Your task to perform on an android device: What's the weather going to be tomorrow? Image 0: 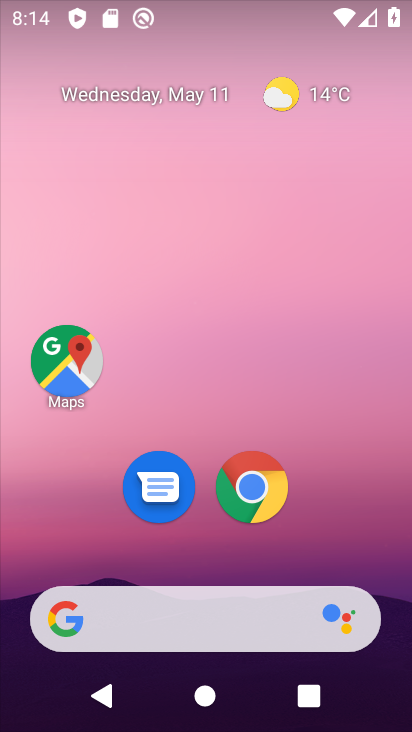
Step 0: click (199, 631)
Your task to perform on an android device: What's the weather going to be tomorrow? Image 1: 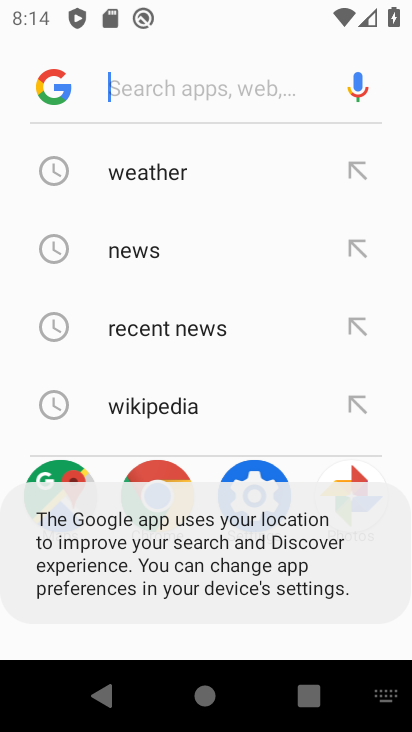
Step 1: click (163, 179)
Your task to perform on an android device: What's the weather going to be tomorrow? Image 2: 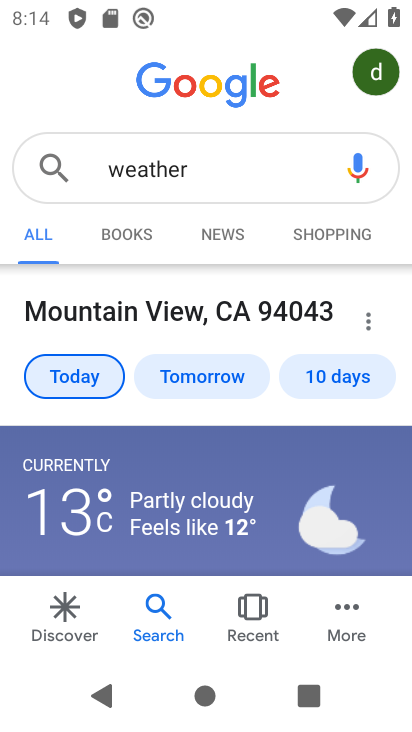
Step 2: click (186, 377)
Your task to perform on an android device: What's the weather going to be tomorrow? Image 3: 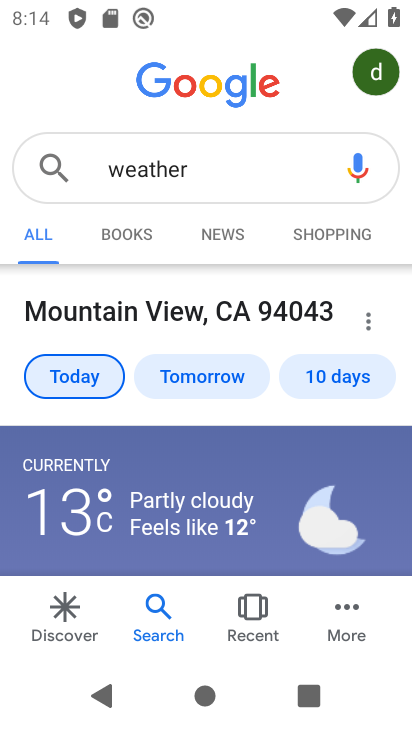
Step 3: click (212, 377)
Your task to perform on an android device: What's the weather going to be tomorrow? Image 4: 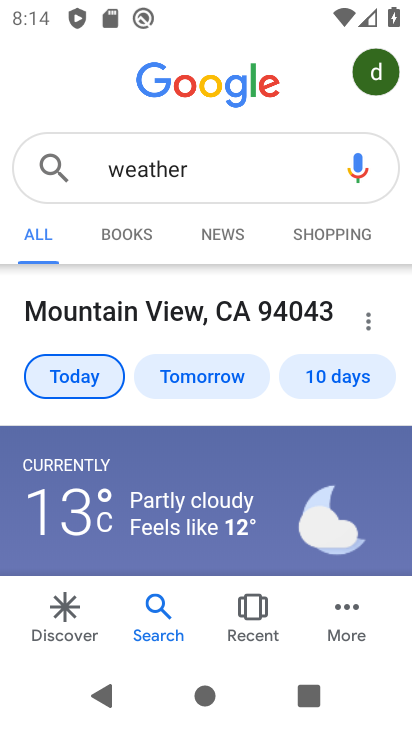
Step 4: click (183, 372)
Your task to perform on an android device: What's the weather going to be tomorrow? Image 5: 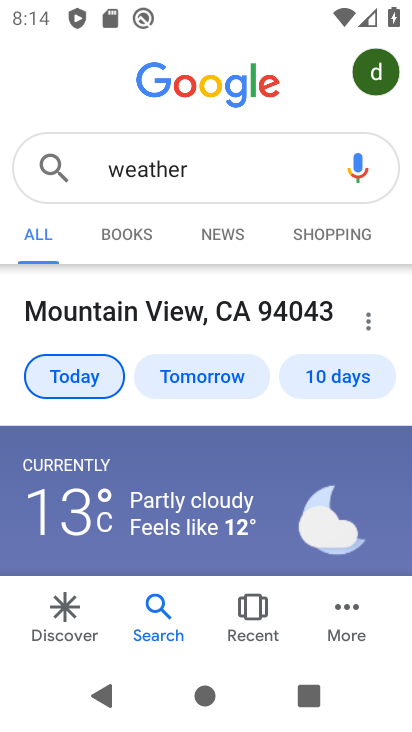
Step 5: click (189, 378)
Your task to perform on an android device: What's the weather going to be tomorrow? Image 6: 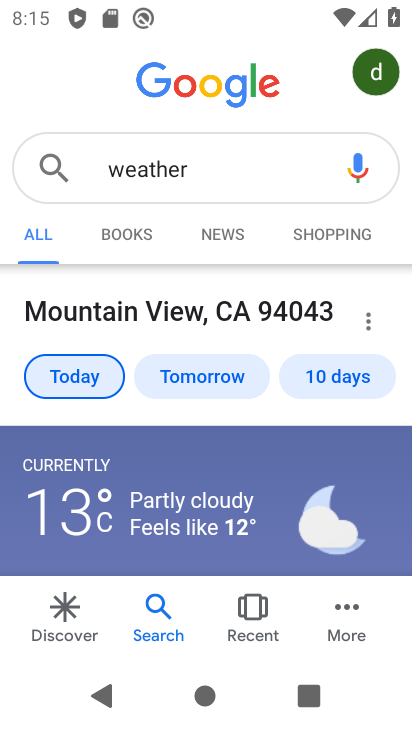
Step 6: click (203, 354)
Your task to perform on an android device: What's the weather going to be tomorrow? Image 7: 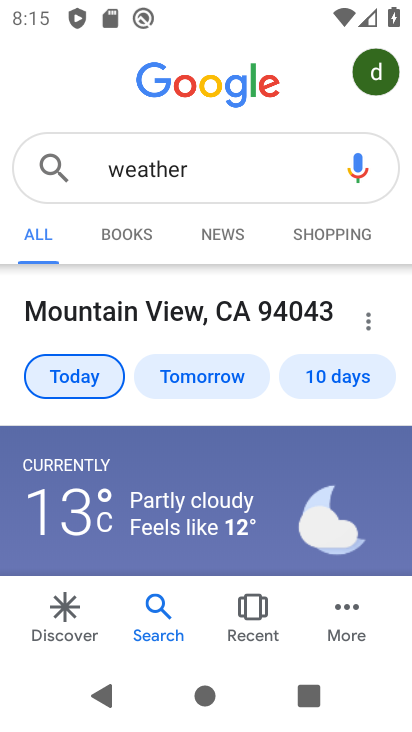
Step 7: click (203, 363)
Your task to perform on an android device: What's the weather going to be tomorrow? Image 8: 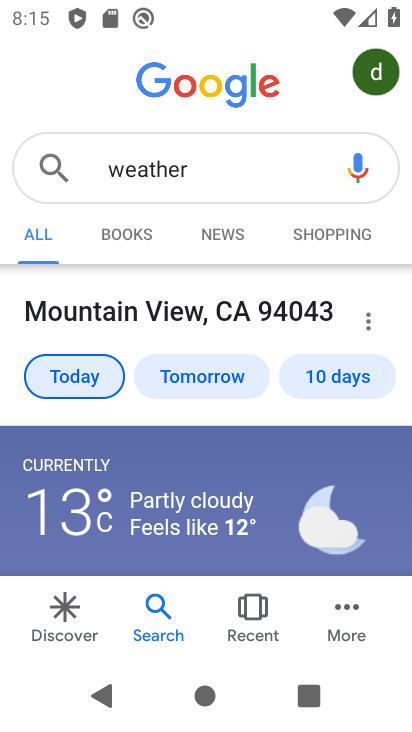
Step 8: click (201, 367)
Your task to perform on an android device: What's the weather going to be tomorrow? Image 9: 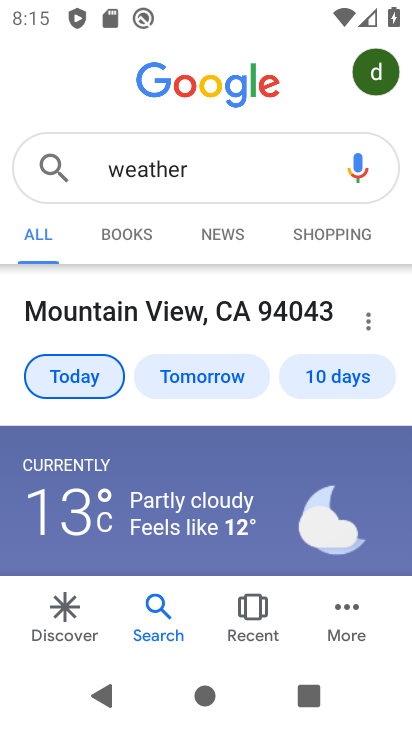
Step 9: click (198, 378)
Your task to perform on an android device: What's the weather going to be tomorrow? Image 10: 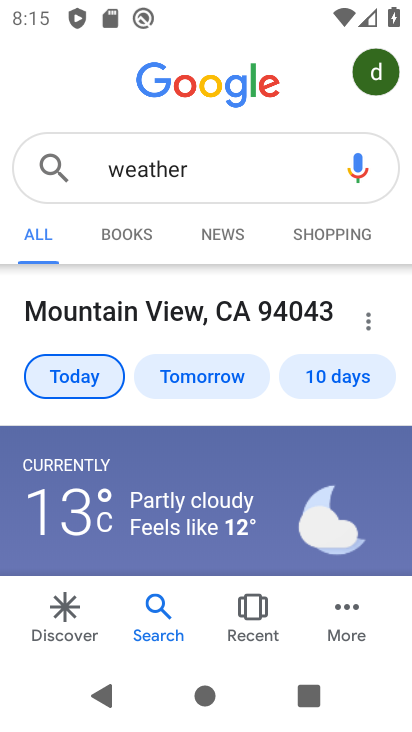
Step 10: click (198, 378)
Your task to perform on an android device: What's the weather going to be tomorrow? Image 11: 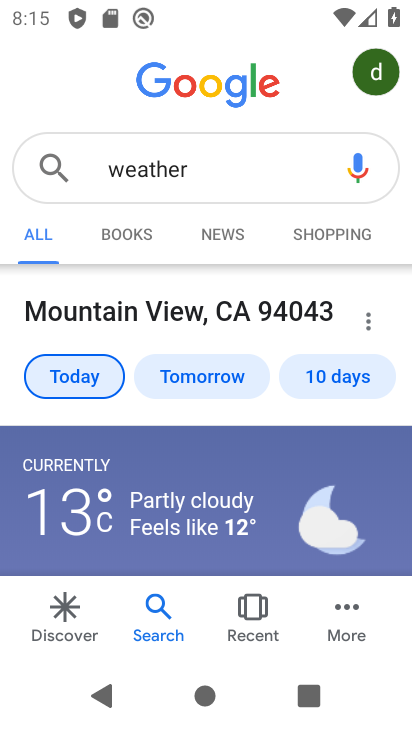
Step 11: click (198, 378)
Your task to perform on an android device: What's the weather going to be tomorrow? Image 12: 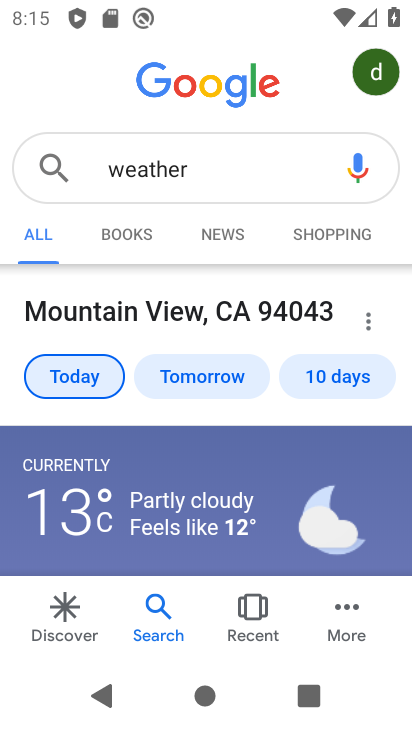
Step 12: click (198, 378)
Your task to perform on an android device: What's the weather going to be tomorrow? Image 13: 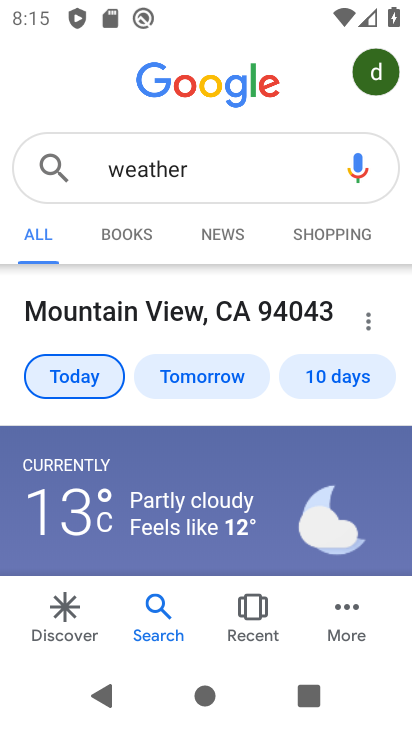
Step 13: click (180, 388)
Your task to perform on an android device: What's the weather going to be tomorrow? Image 14: 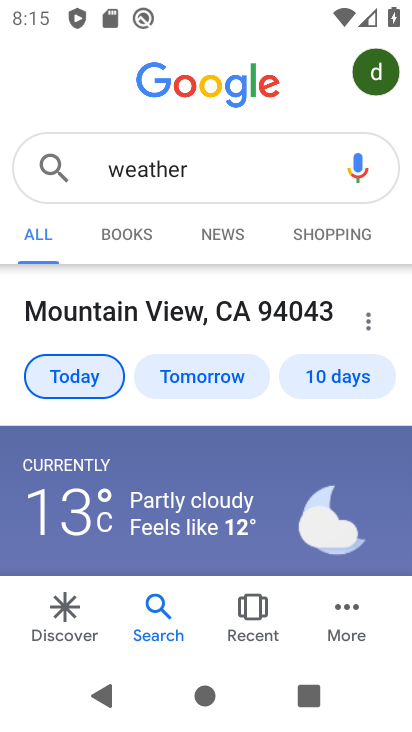
Step 14: click (180, 388)
Your task to perform on an android device: What's the weather going to be tomorrow? Image 15: 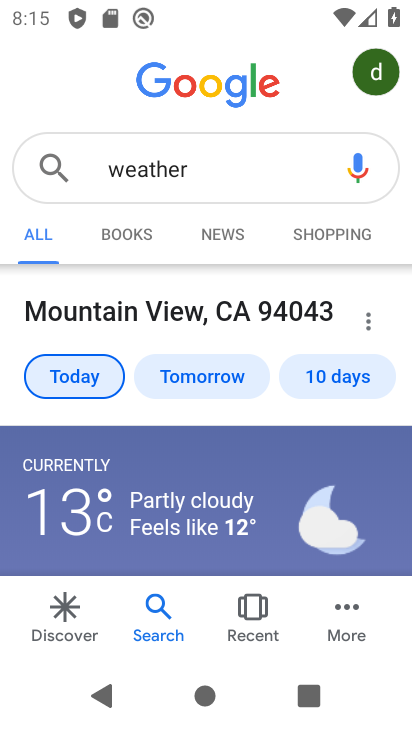
Step 15: click (180, 388)
Your task to perform on an android device: What's the weather going to be tomorrow? Image 16: 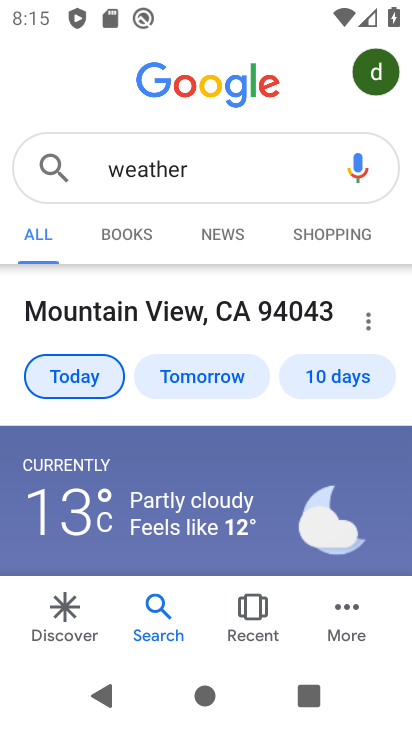
Step 16: click (328, 372)
Your task to perform on an android device: What's the weather going to be tomorrow? Image 17: 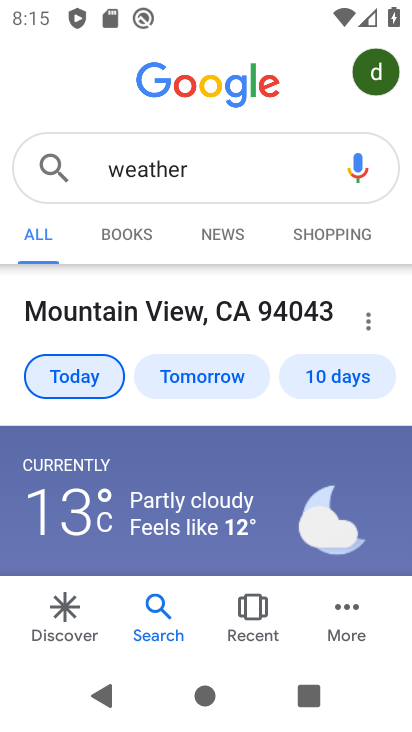
Step 17: click (328, 372)
Your task to perform on an android device: What's the weather going to be tomorrow? Image 18: 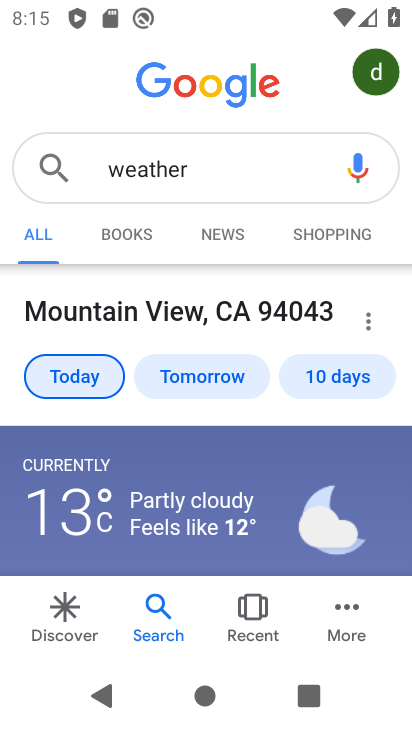
Step 18: click (188, 384)
Your task to perform on an android device: What's the weather going to be tomorrow? Image 19: 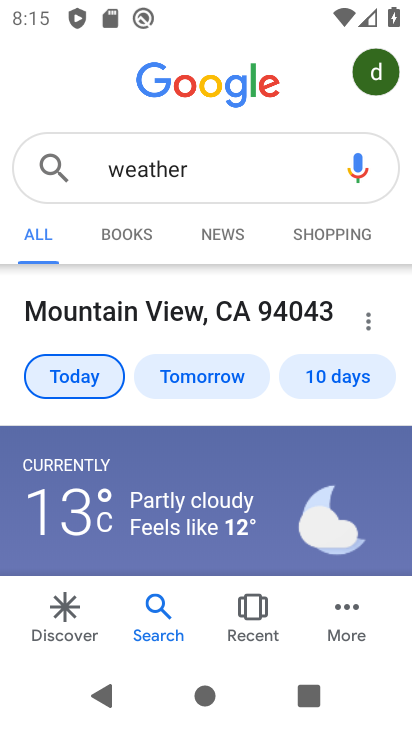
Step 19: task complete